Your task to perform on an android device: Go to display settings Image 0: 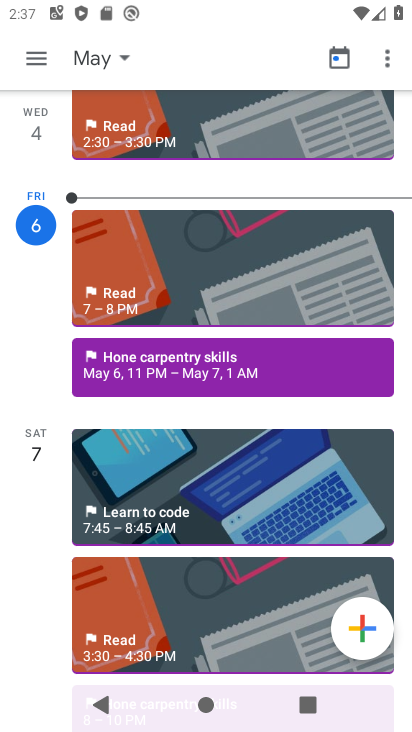
Step 0: press home button
Your task to perform on an android device: Go to display settings Image 1: 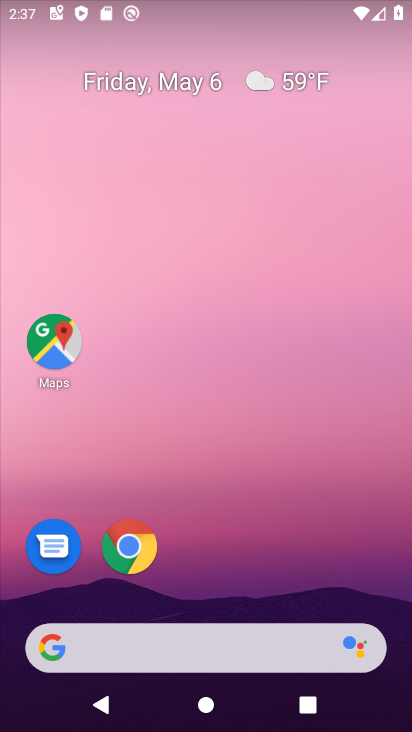
Step 1: drag from (267, 293) to (267, 116)
Your task to perform on an android device: Go to display settings Image 2: 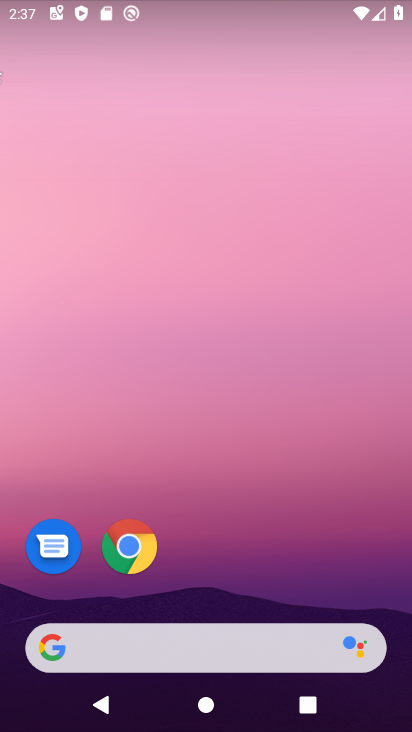
Step 2: drag from (286, 608) to (306, 36)
Your task to perform on an android device: Go to display settings Image 3: 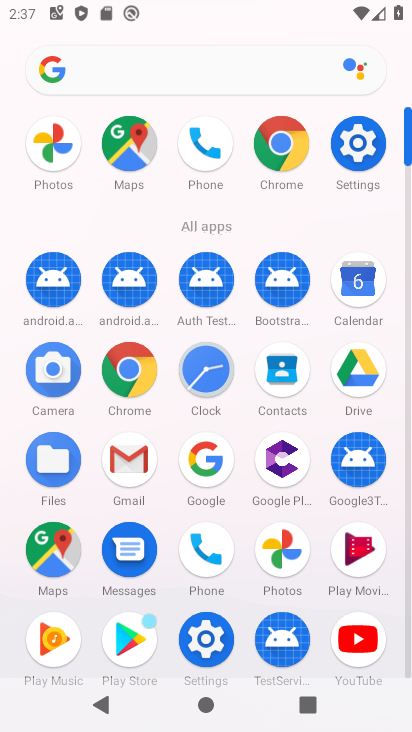
Step 3: click (361, 148)
Your task to perform on an android device: Go to display settings Image 4: 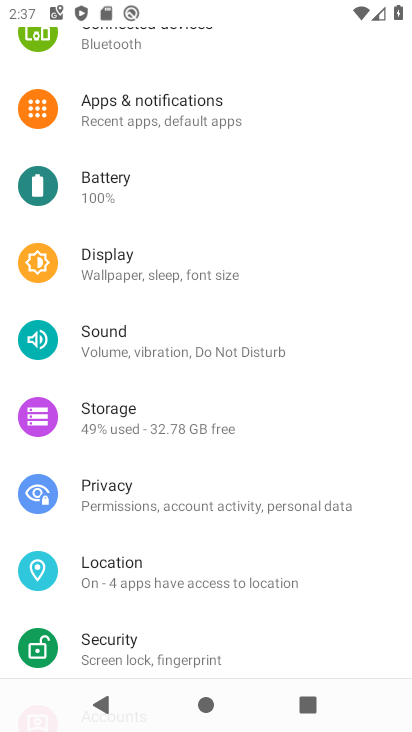
Step 4: click (172, 266)
Your task to perform on an android device: Go to display settings Image 5: 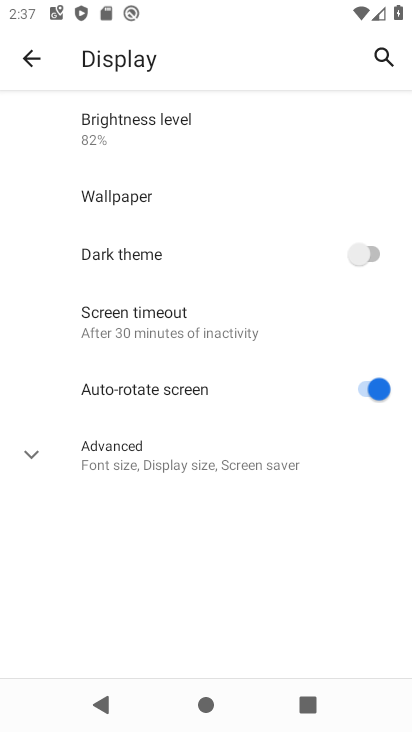
Step 5: task complete